Your task to perform on an android device: Go to Maps Image 0: 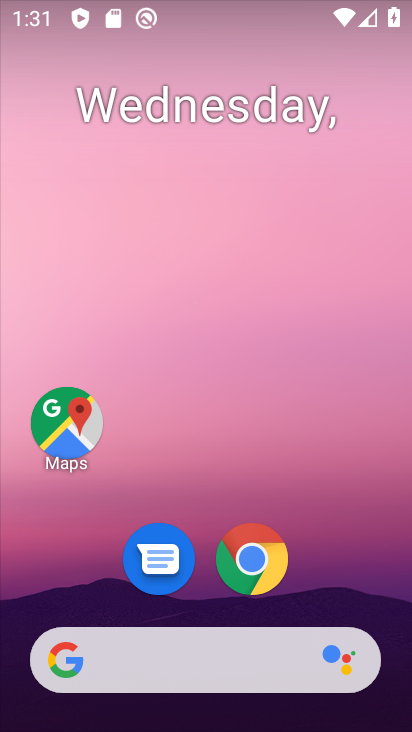
Step 0: click (83, 423)
Your task to perform on an android device: Go to Maps Image 1: 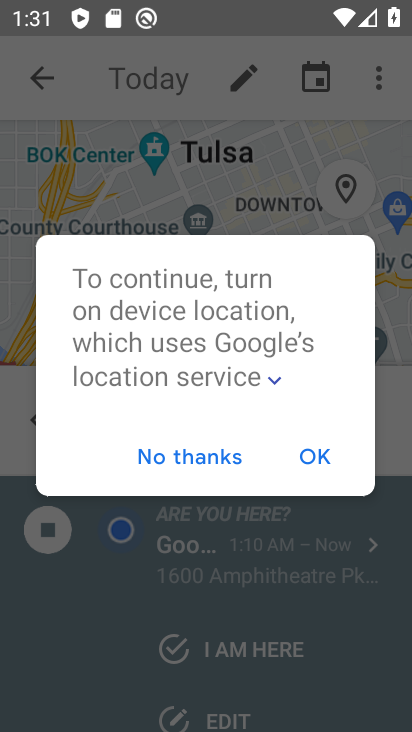
Step 1: task complete